Your task to perform on an android device: check android version Image 0: 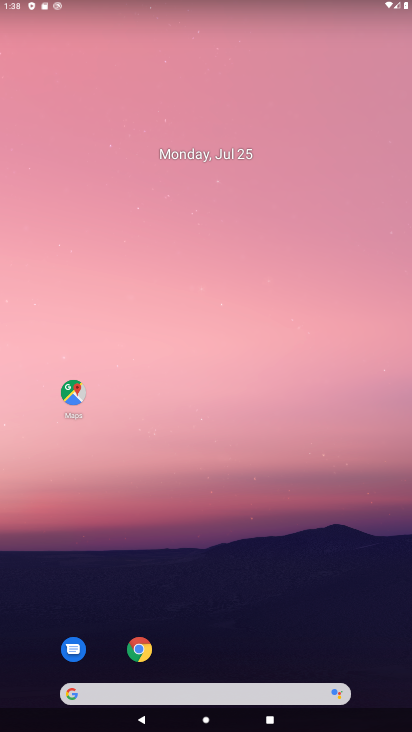
Step 0: drag from (179, 720) to (314, 38)
Your task to perform on an android device: check android version Image 1: 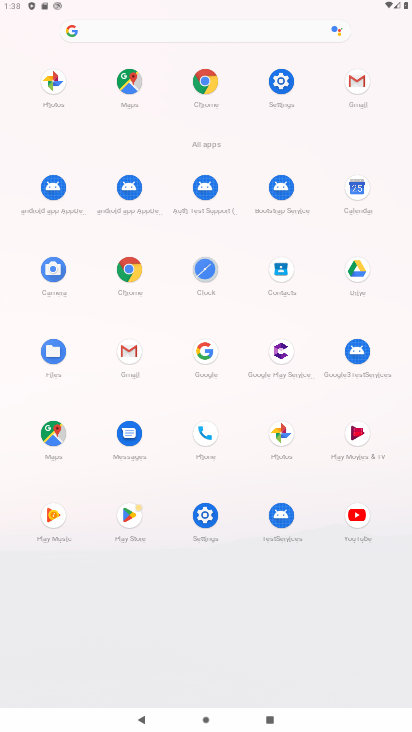
Step 1: click (279, 78)
Your task to perform on an android device: check android version Image 2: 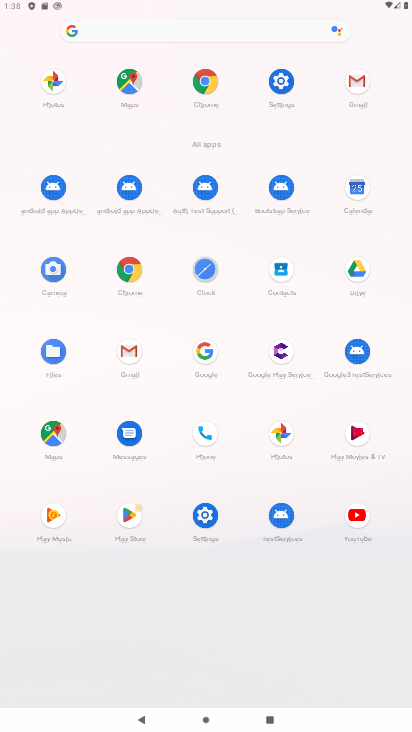
Step 2: click (279, 78)
Your task to perform on an android device: check android version Image 3: 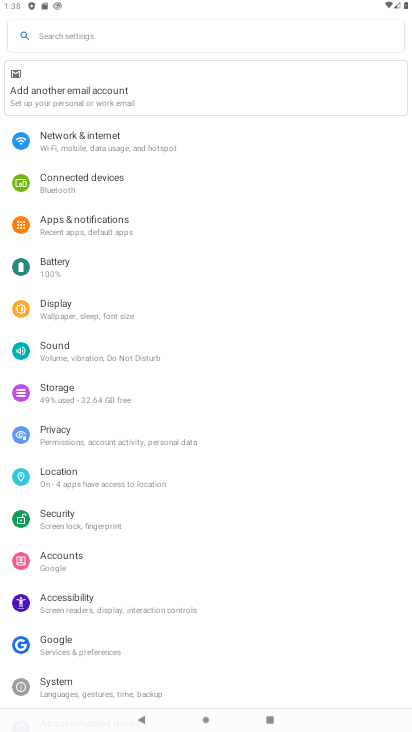
Step 3: drag from (224, 605) to (174, 0)
Your task to perform on an android device: check android version Image 4: 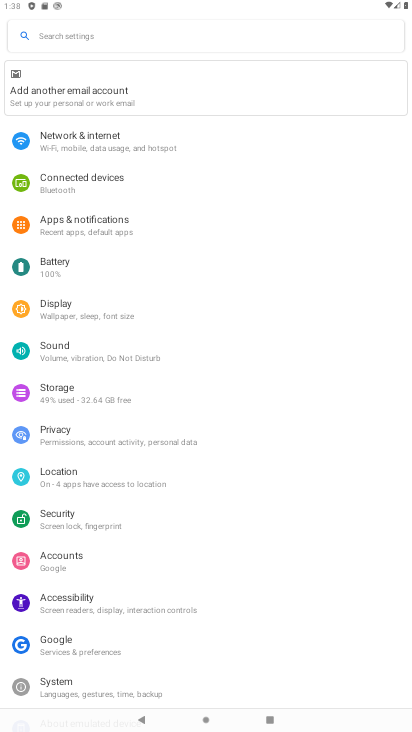
Step 4: drag from (191, 650) to (326, 146)
Your task to perform on an android device: check android version Image 5: 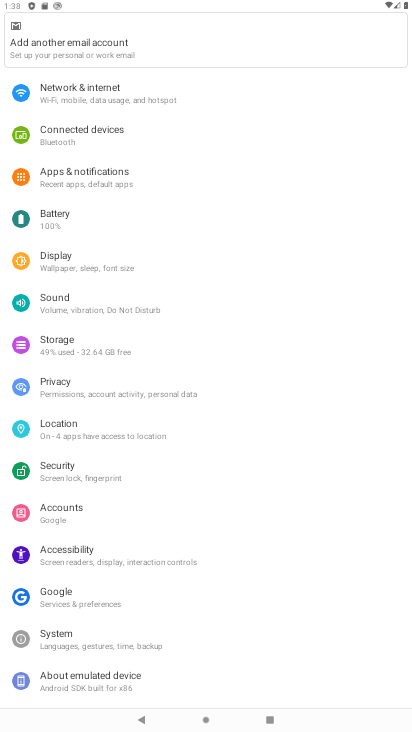
Step 5: click (100, 683)
Your task to perform on an android device: check android version Image 6: 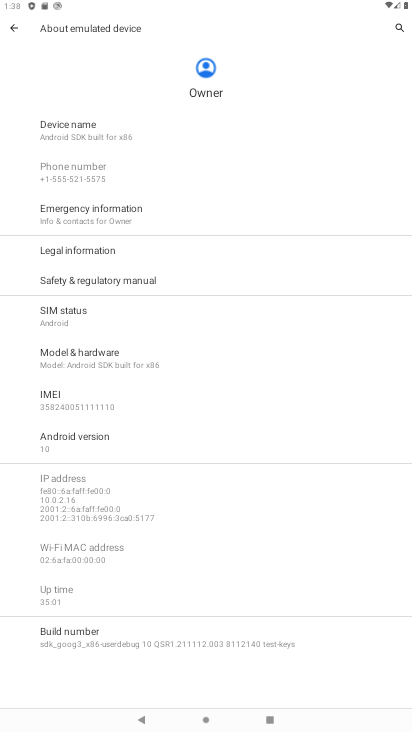
Step 6: task complete